Your task to perform on an android device: Go to Maps Image 0: 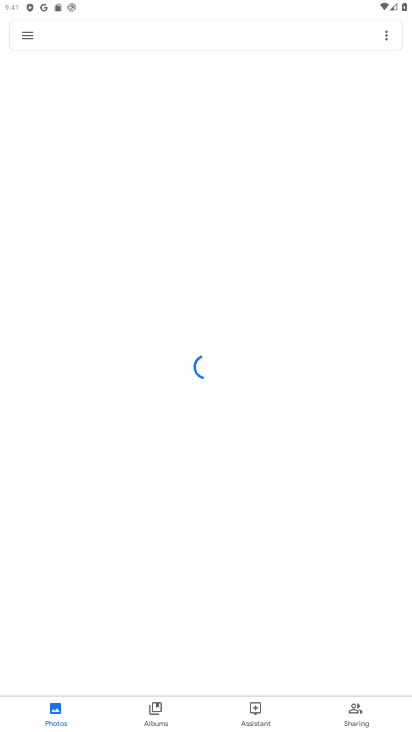
Step 0: press home button
Your task to perform on an android device: Go to Maps Image 1: 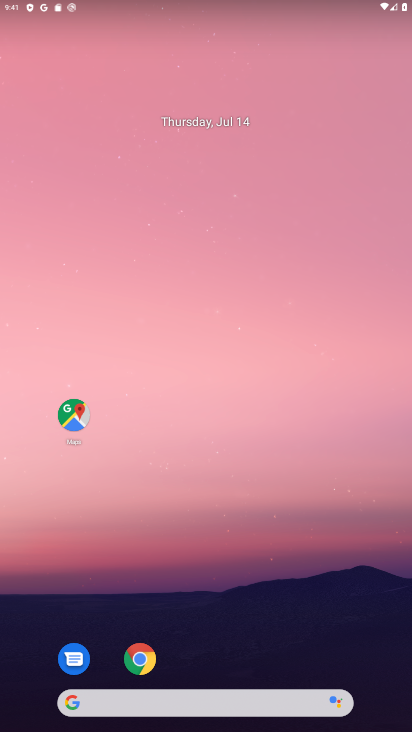
Step 1: drag from (296, 519) to (309, 104)
Your task to perform on an android device: Go to Maps Image 2: 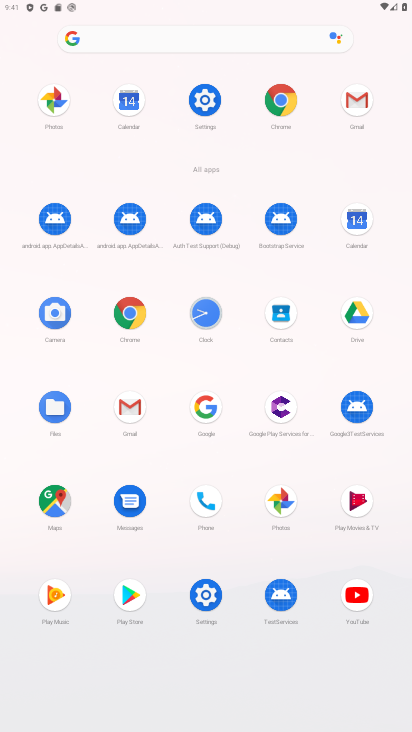
Step 2: click (59, 499)
Your task to perform on an android device: Go to Maps Image 3: 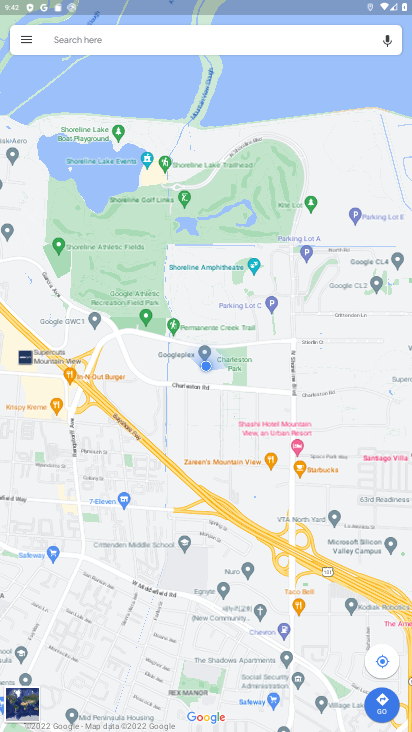
Step 3: task complete